Your task to perform on an android device: Open Google Maps Image 0: 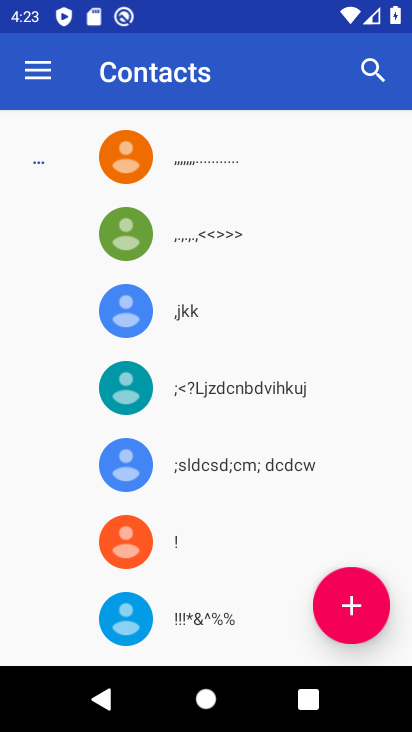
Step 0: press home button
Your task to perform on an android device: Open Google Maps Image 1: 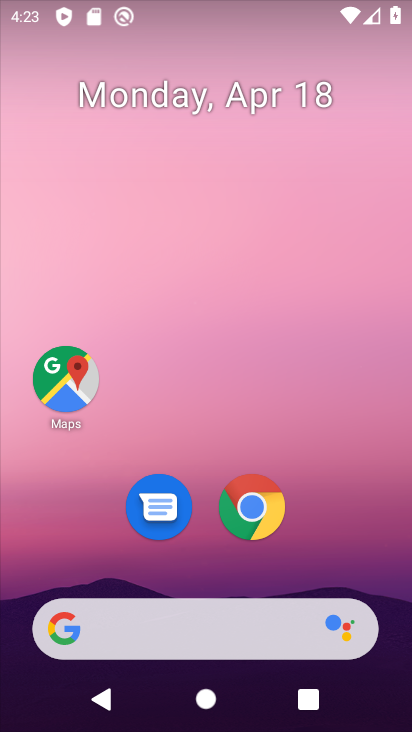
Step 1: drag from (263, 474) to (220, 7)
Your task to perform on an android device: Open Google Maps Image 2: 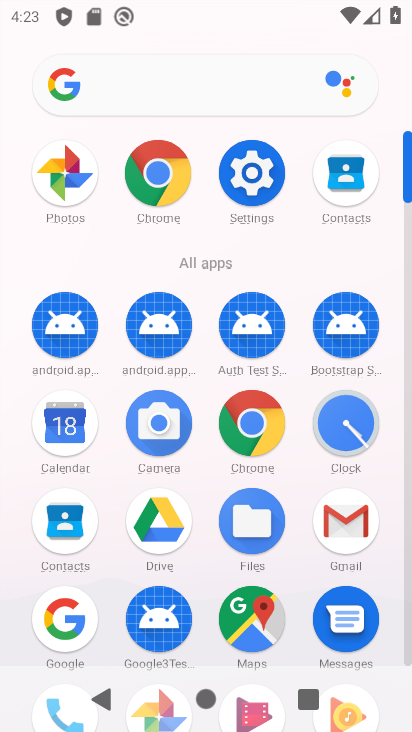
Step 2: drag from (293, 595) to (311, 213)
Your task to perform on an android device: Open Google Maps Image 3: 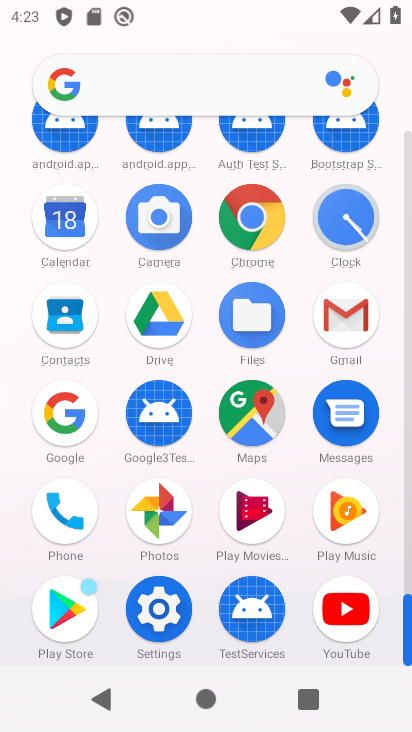
Step 3: click (268, 408)
Your task to perform on an android device: Open Google Maps Image 4: 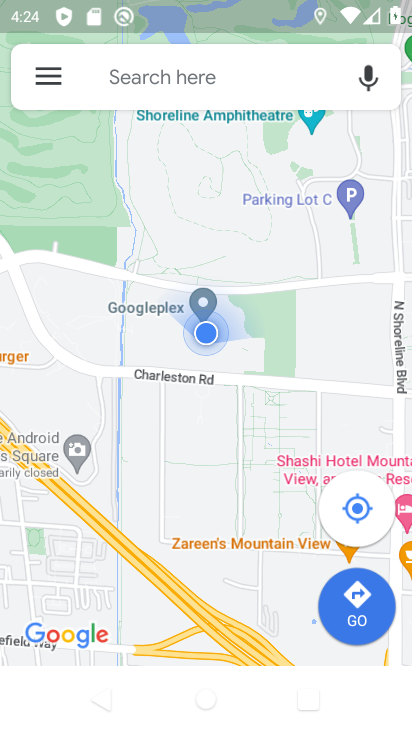
Step 4: click (256, 73)
Your task to perform on an android device: Open Google Maps Image 5: 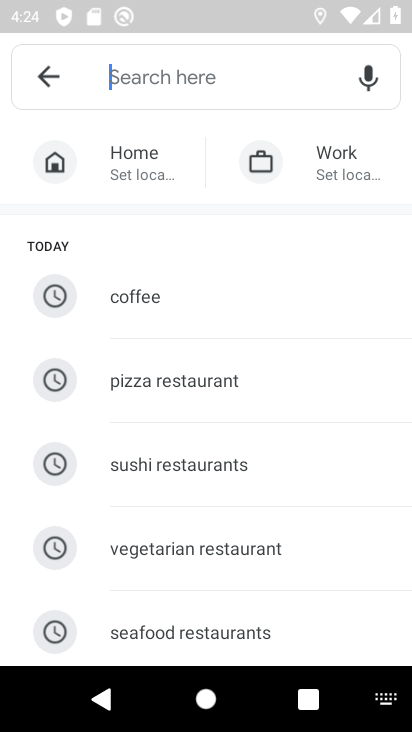
Step 5: task complete